Your task to perform on an android device: turn off translation in the chrome app Image 0: 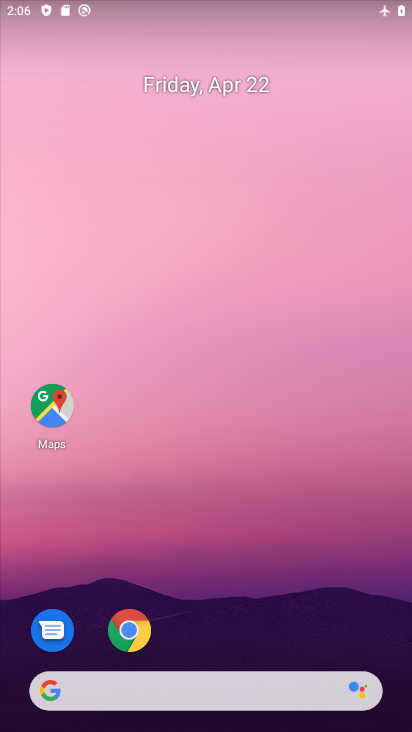
Step 0: drag from (379, 551) to (389, 157)
Your task to perform on an android device: turn off translation in the chrome app Image 1: 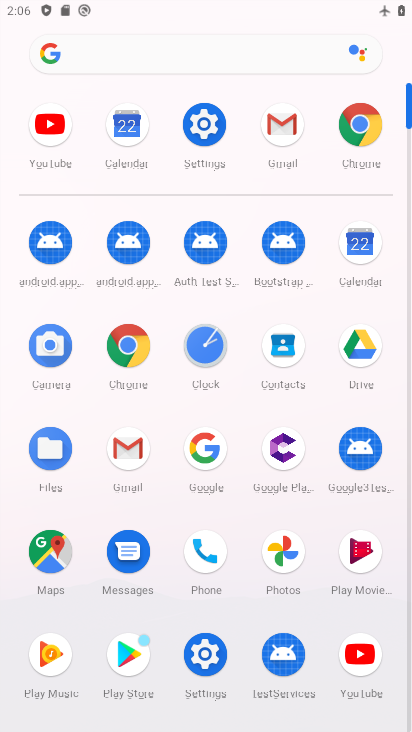
Step 1: click (138, 356)
Your task to perform on an android device: turn off translation in the chrome app Image 2: 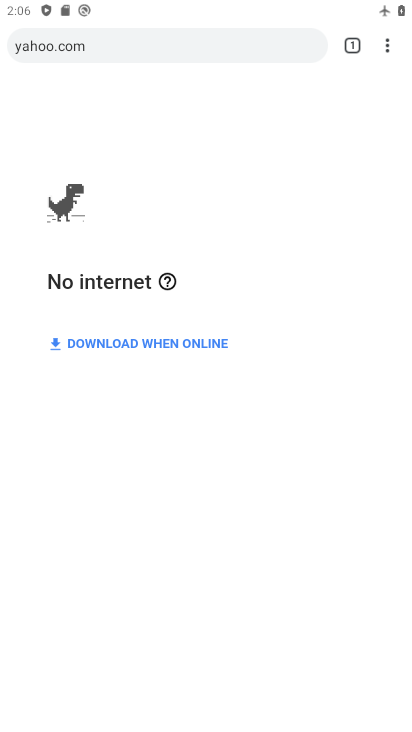
Step 2: drag from (393, 51) to (233, 563)
Your task to perform on an android device: turn off translation in the chrome app Image 3: 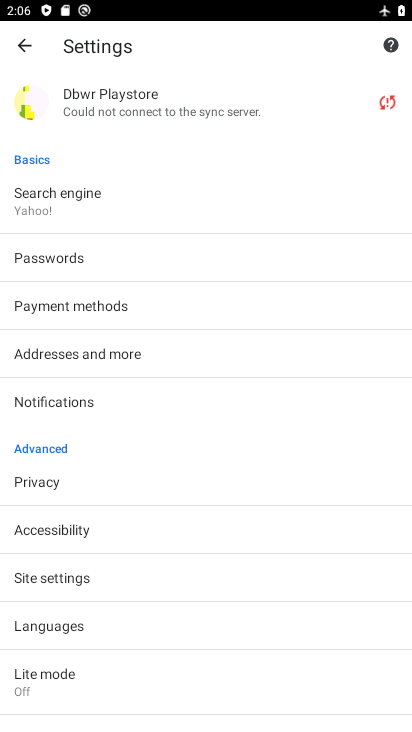
Step 3: click (141, 628)
Your task to perform on an android device: turn off translation in the chrome app Image 4: 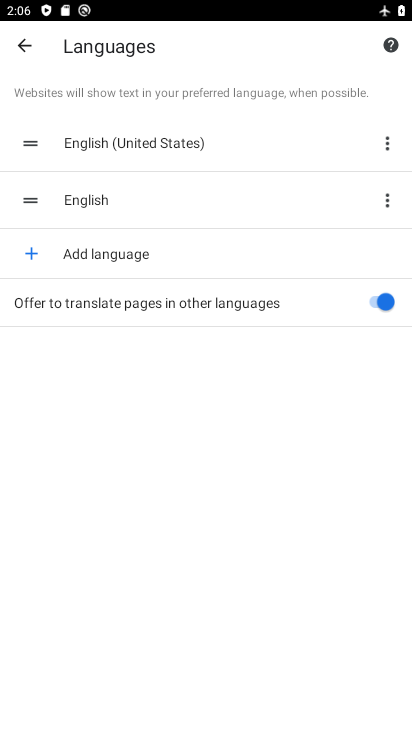
Step 4: click (380, 294)
Your task to perform on an android device: turn off translation in the chrome app Image 5: 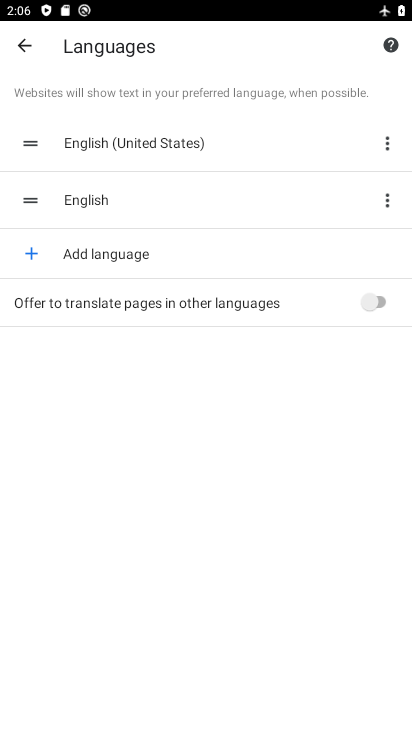
Step 5: task complete